Your task to perform on an android device: check storage Image 0: 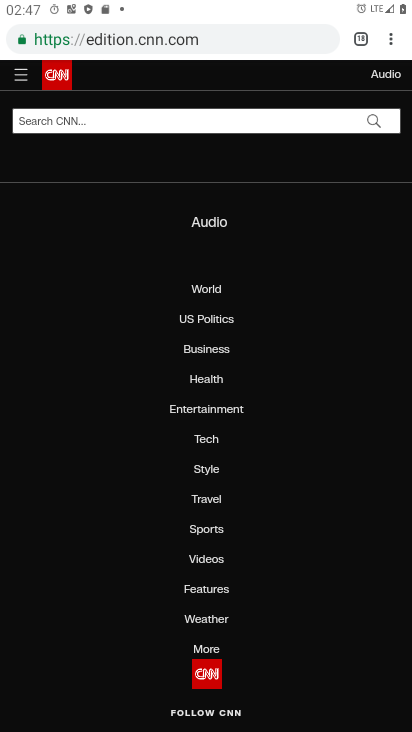
Step 0: press home button
Your task to perform on an android device: check storage Image 1: 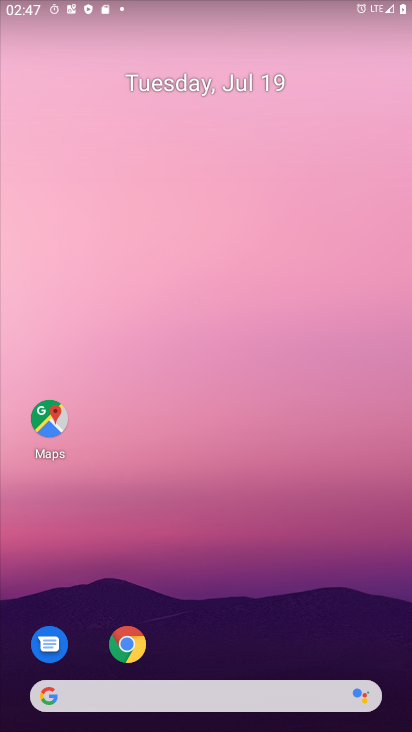
Step 1: drag from (199, 714) to (181, 182)
Your task to perform on an android device: check storage Image 2: 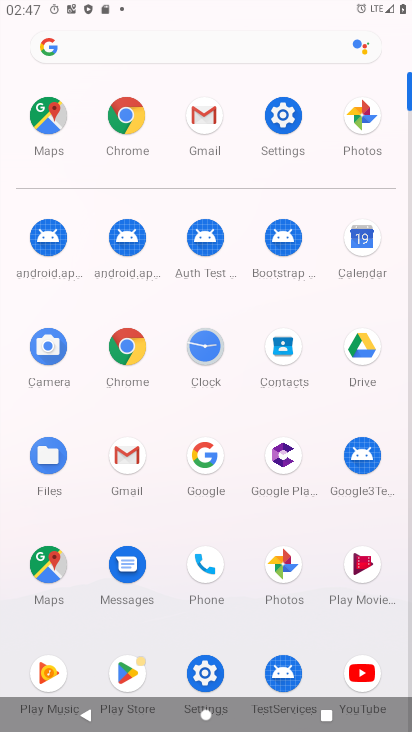
Step 2: click (284, 120)
Your task to perform on an android device: check storage Image 3: 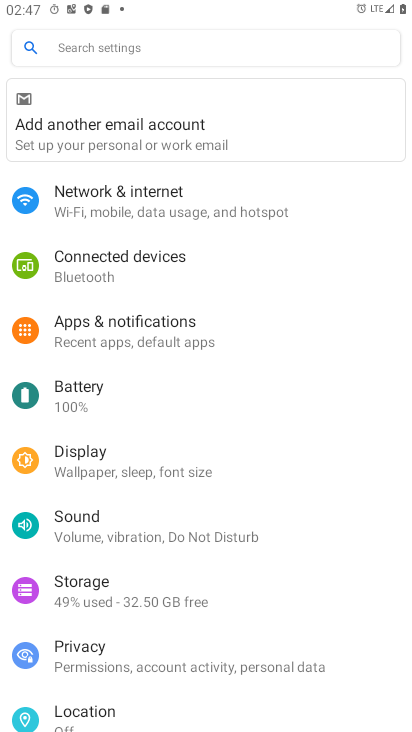
Step 3: click (79, 585)
Your task to perform on an android device: check storage Image 4: 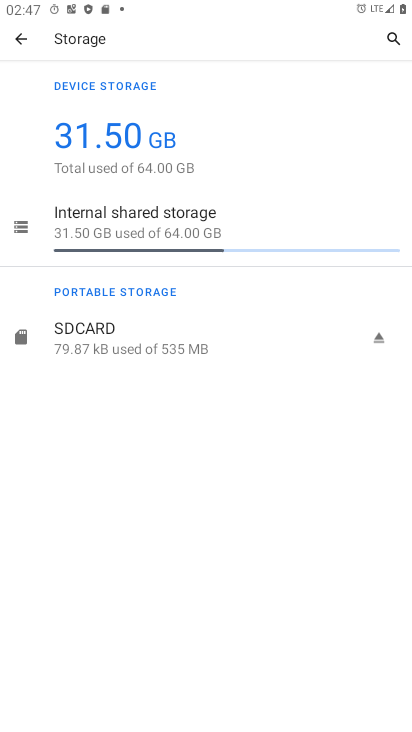
Step 4: task complete